Your task to perform on an android device: change the clock display to digital Image 0: 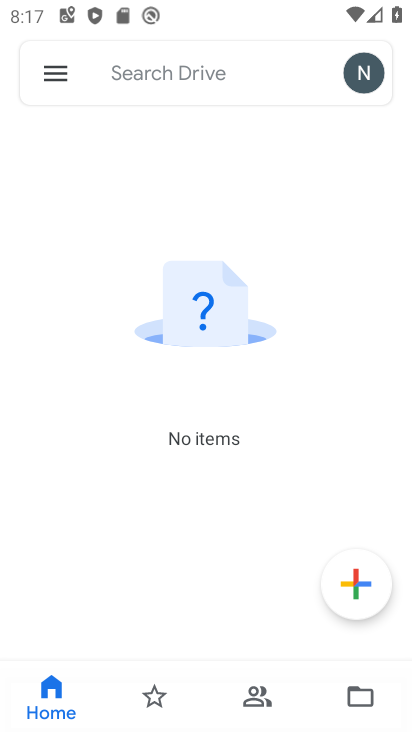
Step 0: press home button
Your task to perform on an android device: change the clock display to digital Image 1: 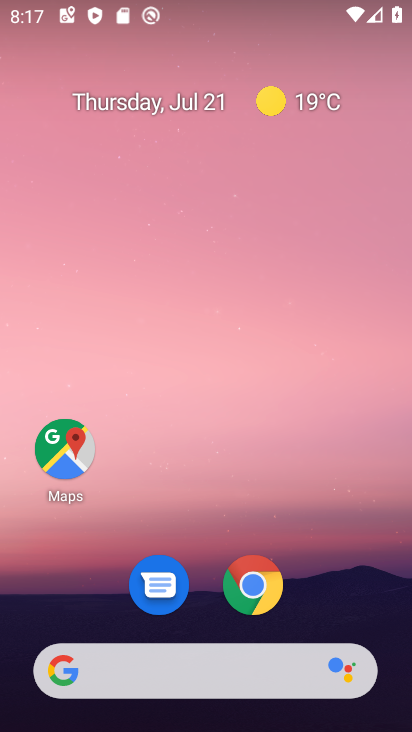
Step 1: drag from (329, 609) to (295, 64)
Your task to perform on an android device: change the clock display to digital Image 2: 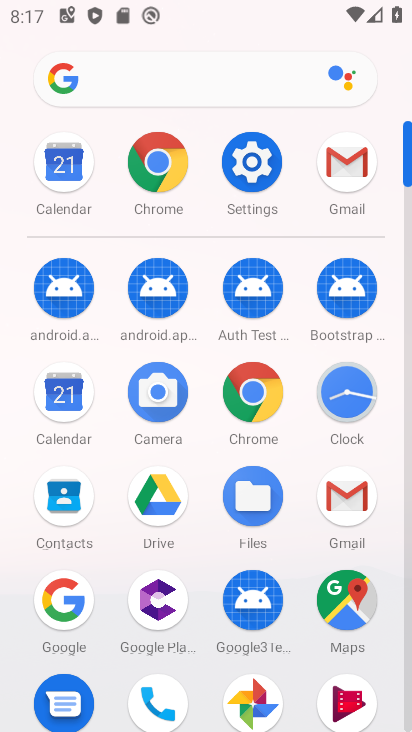
Step 2: click (346, 393)
Your task to perform on an android device: change the clock display to digital Image 3: 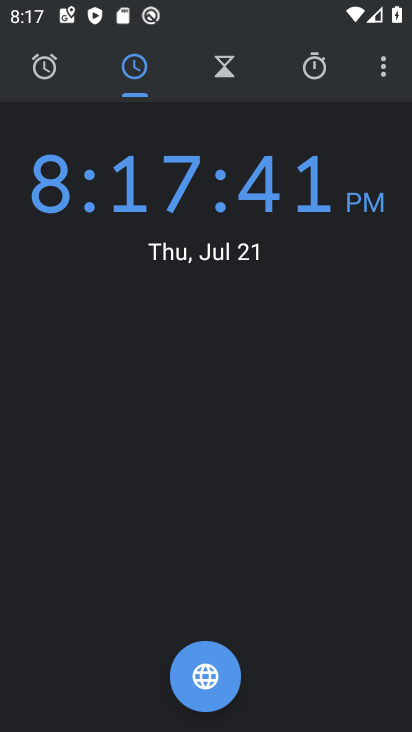
Step 3: task complete